Your task to perform on an android device: check out phone information Image 0: 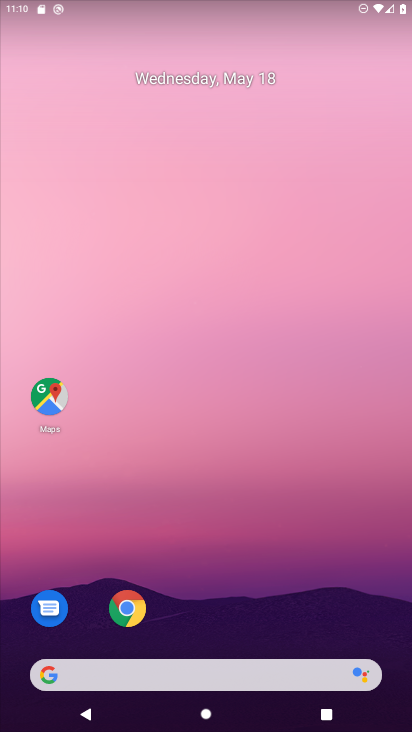
Step 0: drag from (254, 592) to (156, 144)
Your task to perform on an android device: check out phone information Image 1: 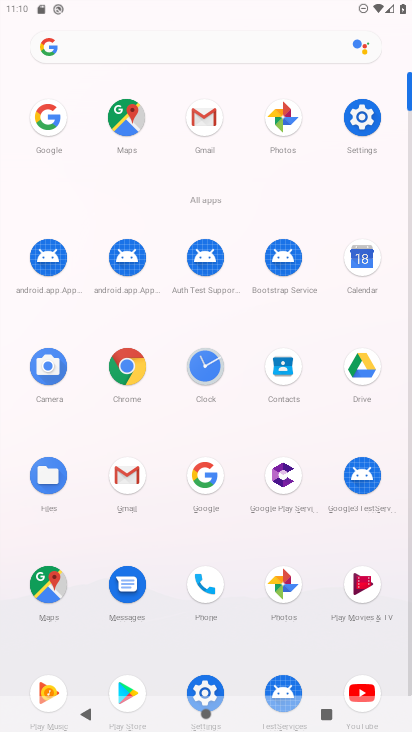
Step 1: click (362, 117)
Your task to perform on an android device: check out phone information Image 2: 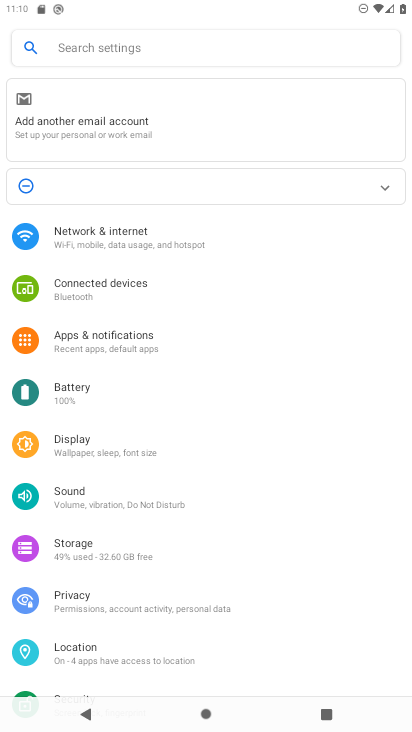
Step 2: drag from (143, 470) to (135, 376)
Your task to perform on an android device: check out phone information Image 3: 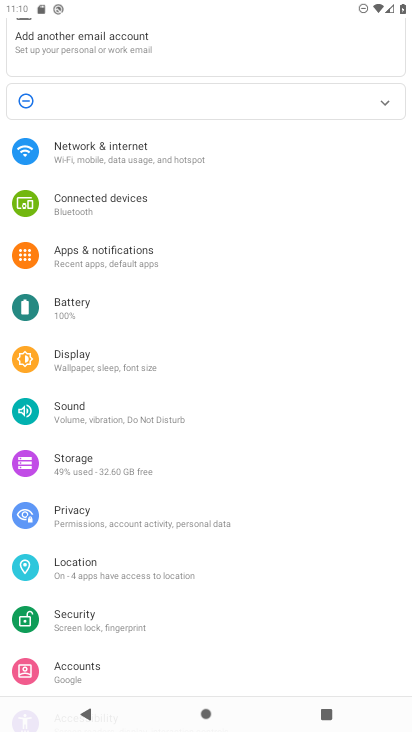
Step 3: drag from (112, 488) to (103, 404)
Your task to perform on an android device: check out phone information Image 4: 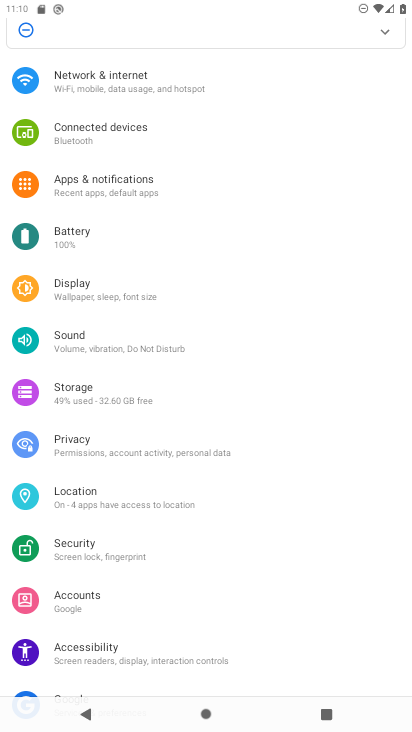
Step 4: drag from (70, 611) to (93, 494)
Your task to perform on an android device: check out phone information Image 5: 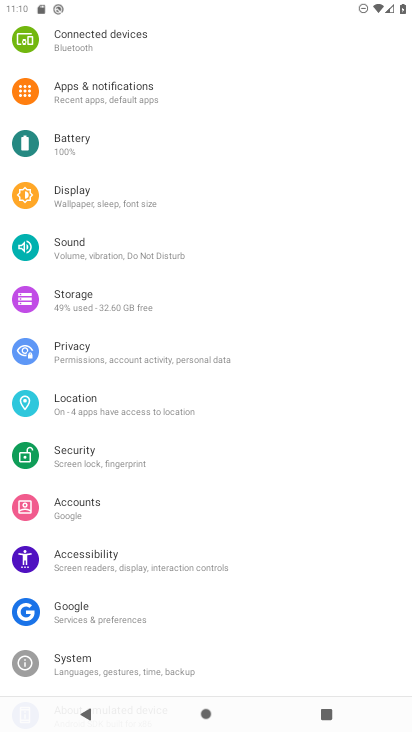
Step 5: drag from (59, 591) to (95, 479)
Your task to perform on an android device: check out phone information Image 6: 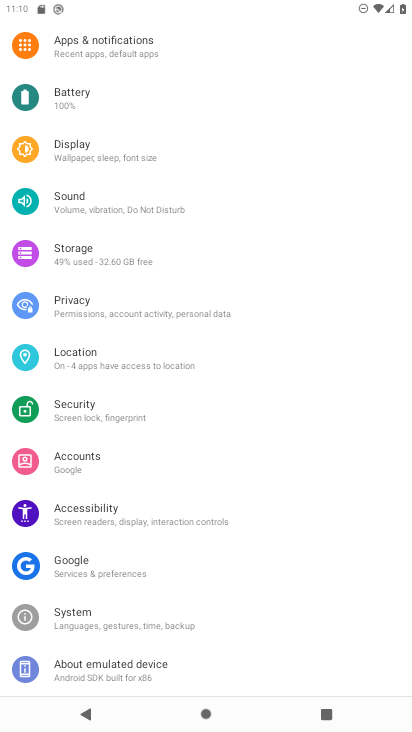
Step 6: click (71, 670)
Your task to perform on an android device: check out phone information Image 7: 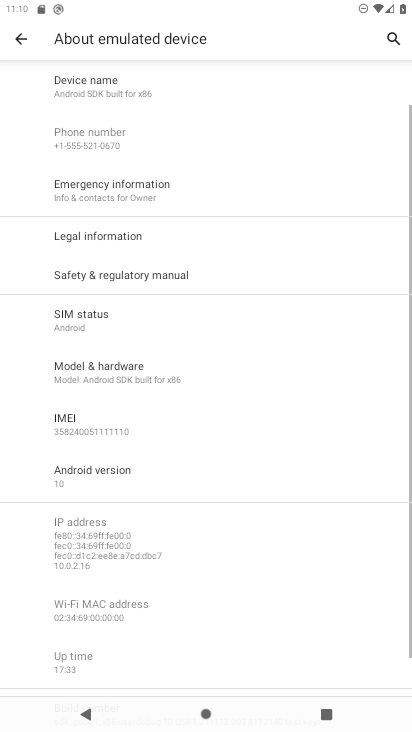
Step 7: task complete